Your task to perform on an android device: Open the calendar app, open the side menu, and click the "Day" option Image 0: 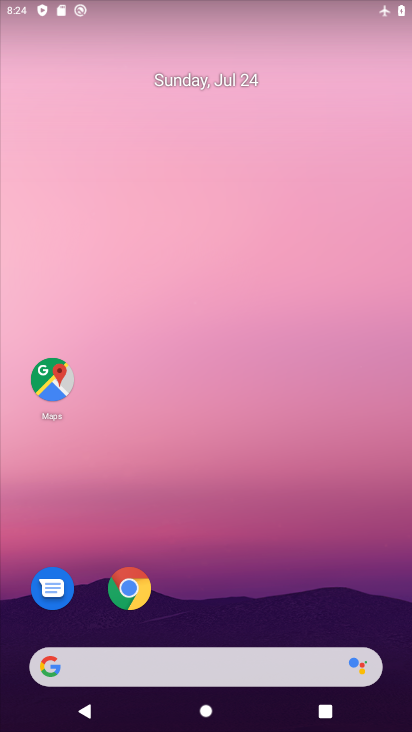
Step 0: drag from (186, 614) to (178, 232)
Your task to perform on an android device: Open the calendar app, open the side menu, and click the "Day" option Image 1: 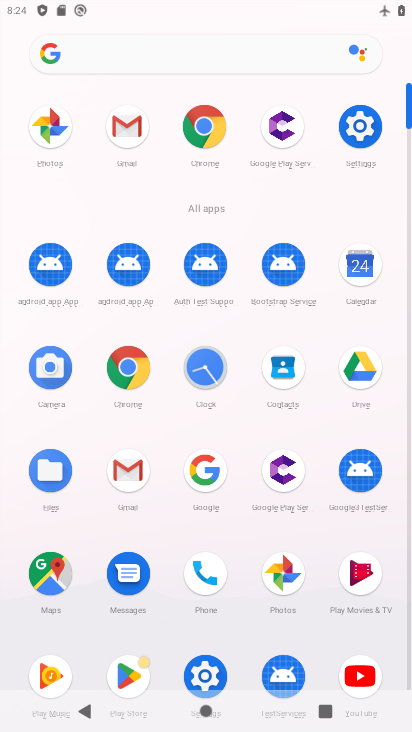
Step 1: click (370, 258)
Your task to perform on an android device: Open the calendar app, open the side menu, and click the "Day" option Image 2: 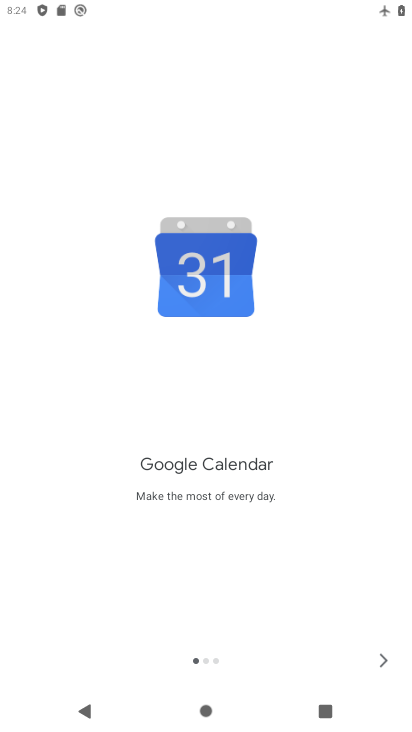
Step 2: click (377, 643)
Your task to perform on an android device: Open the calendar app, open the side menu, and click the "Day" option Image 3: 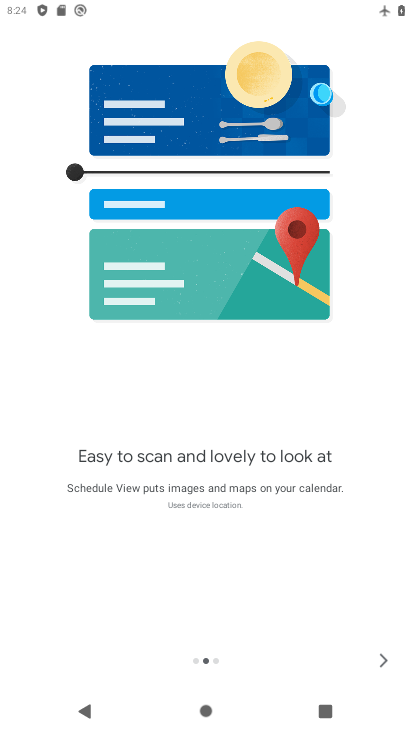
Step 3: click (372, 651)
Your task to perform on an android device: Open the calendar app, open the side menu, and click the "Day" option Image 4: 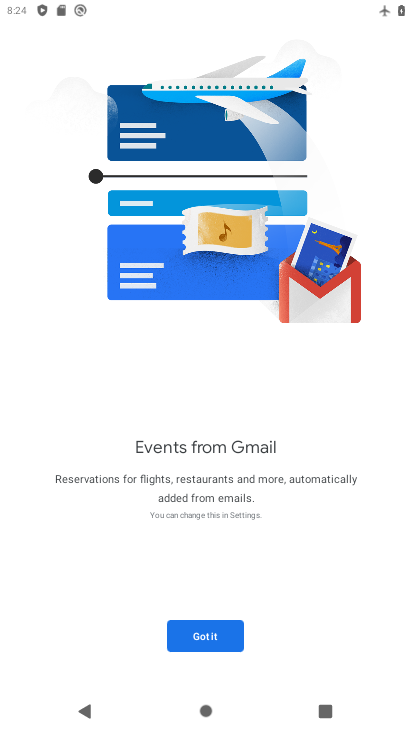
Step 4: click (193, 635)
Your task to perform on an android device: Open the calendar app, open the side menu, and click the "Day" option Image 5: 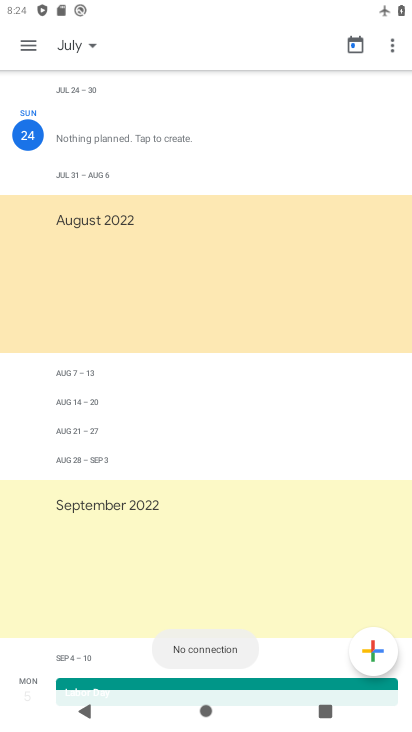
Step 5: click (39, 37)
Your task to perform on an android device: Open the calendar app, open the side menu, and click the "Day" option Image 6: 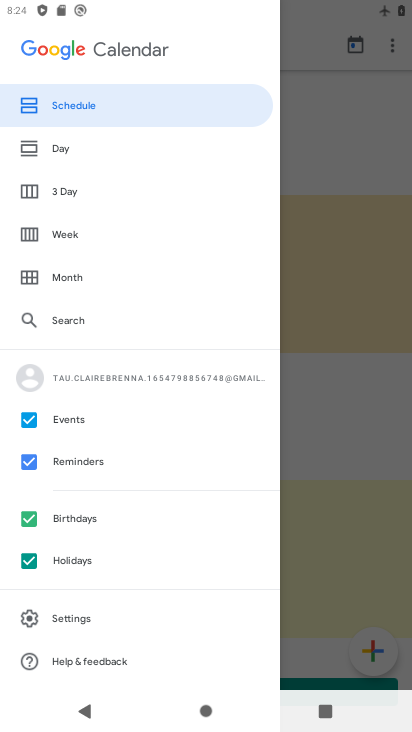
Step 6: click (89, 144)
Your task to perform on an android device: Open the calendar app, open the side menu, and click the "Day" option Image 7: 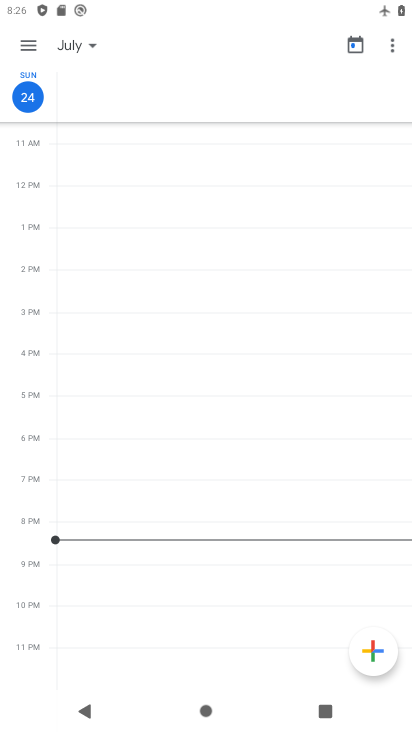
Step 7: task complete